Your task to perform on an android device: Open privacy settings Image 0: 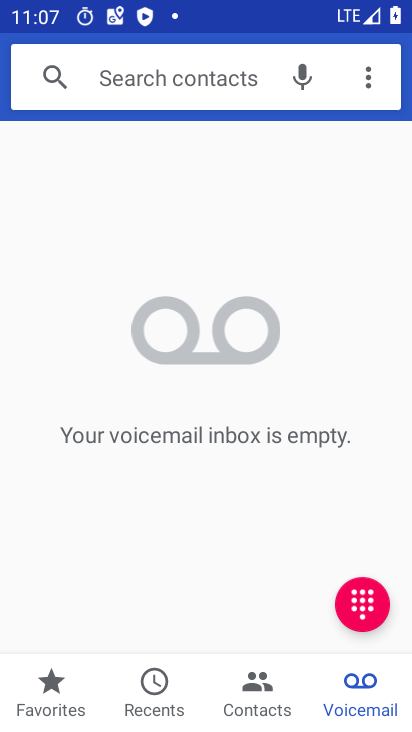
Step 0: drag from (240, 629) to (217, 506)
Your task to perform on an android device: Open privacy settings Image 1: 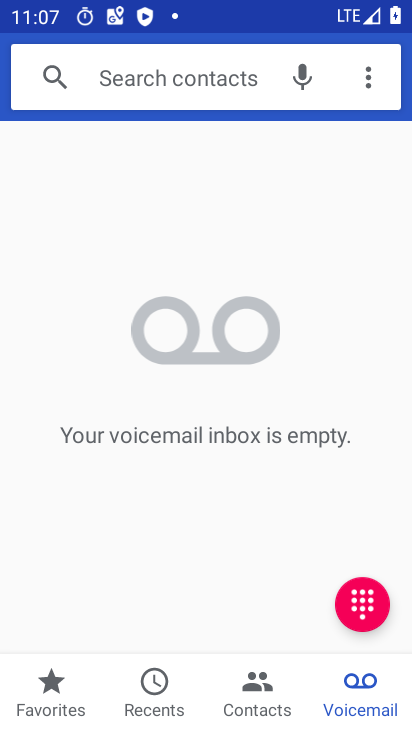
Step 1: press home button
Your task to perform on an android device: Open privacy settings Image 2: 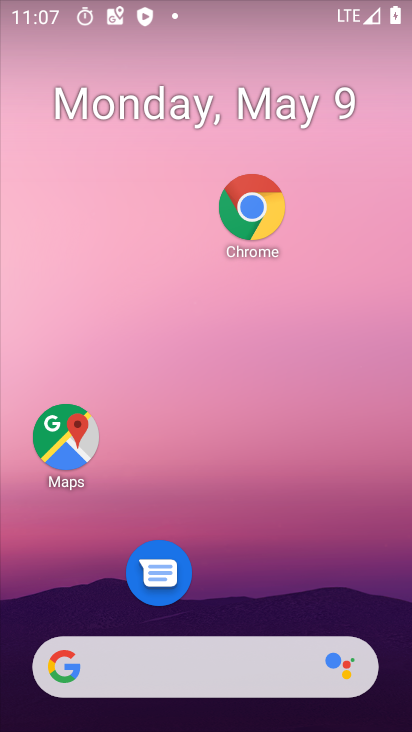
Step 2: drag from (210, 576) to (243, 256)
Your task to perform on an android device: Open privacy settings Image 3: 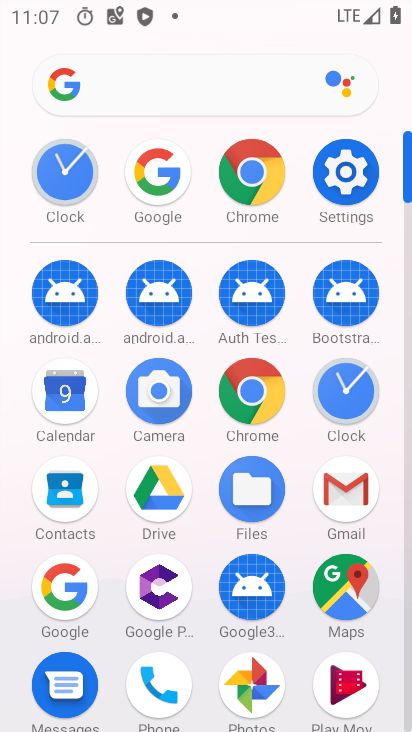
Step 3: click (374, 176)
Your task to perform on an android device: Open privacy settings Image 4: 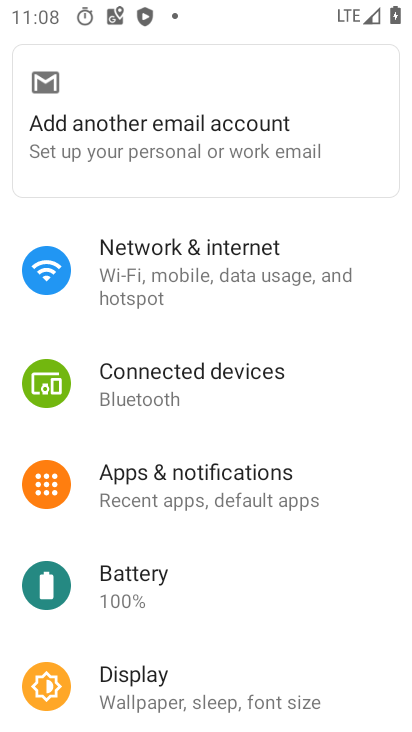
Step 4: drag from (224, 574) to (249, 127)
Your task to perform on an android device: Open privacy settings Image 5: 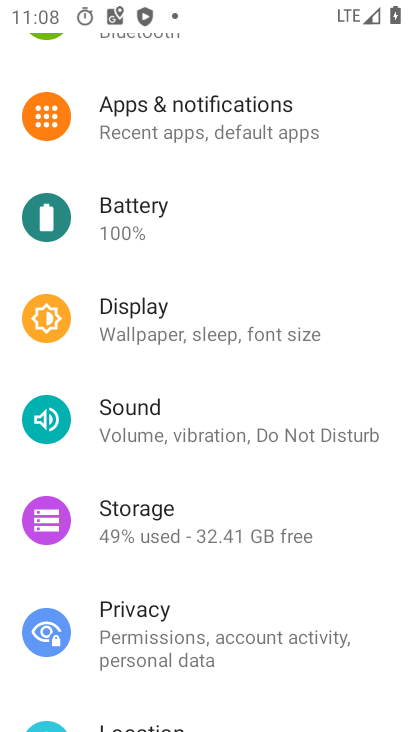
Step 5: click (152, 615)
Your task to perform on an android device: Open privacy settings Image 6: 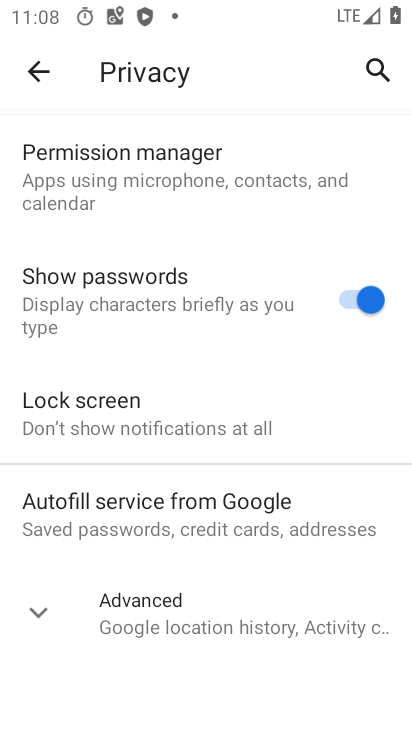
Step 6: task complete